Your task to perform on an android device: open app "Google Calendar" Image 0: 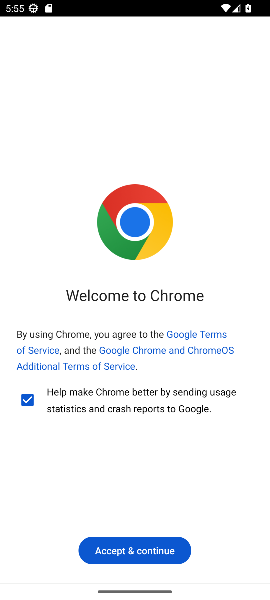
Step 0: press home button
Your task to perform on an android device: open app "Google Calendar" Image 1: 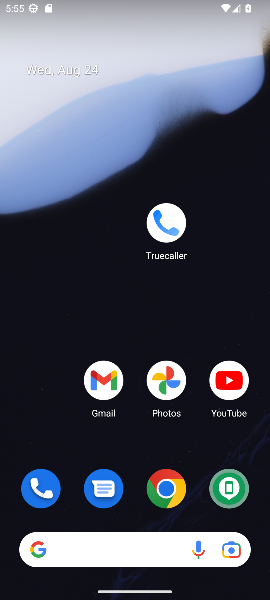
Step 1: drag from (124, 527) to (107, 27)
Your task to perform on an android device: open app "Google Calendar" Image 2: 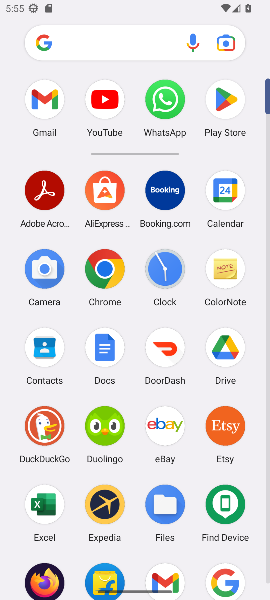
Step 2: click (212, 126)
Your task to perform on an android device: open app "Google Calendar" Image 3: 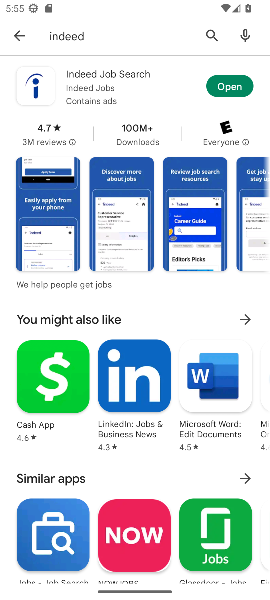
Step 3: click (209, 45)
Your task to perform on an android device: open app "Google Calendar" Image 4: 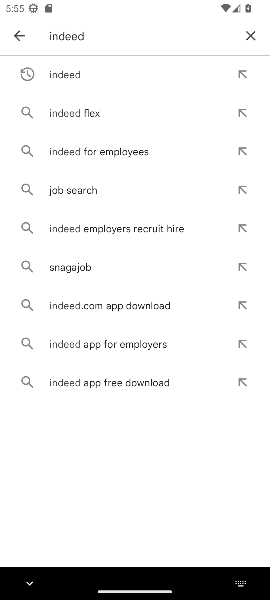
Step 4: click (243, 41)
Your task to perform on an android device: open app "Google Calendar" Image 5: 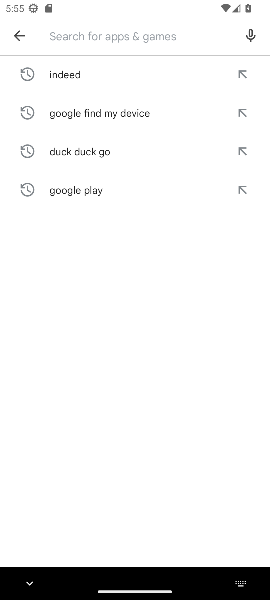
Step 5: type "google calendar"
Your task to perform on an android device: open app "Google Calendar" Image 6: 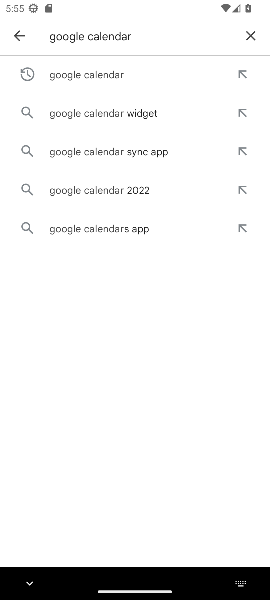
Step 6: click (119, 69)
Your task to perform on an android device: open app "Google Calendar" Image 7: 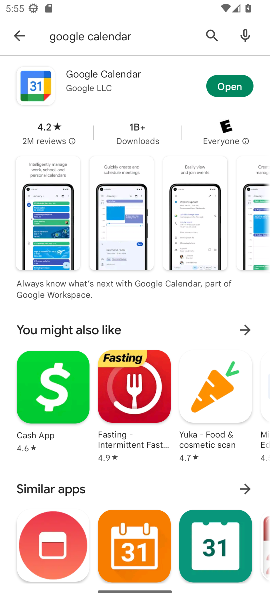
Step 7: click (216, 82)
Your task to perform on an android device: open app "Google Calendar" Image 8: 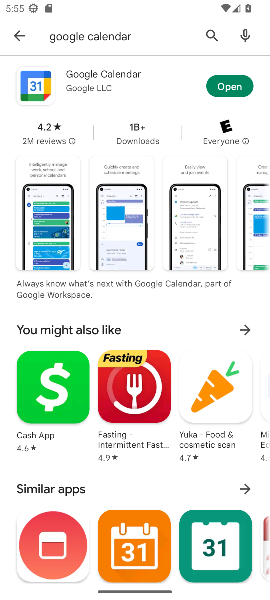
Step 8: task complete